Your task to perform on an android device: Show me a list of home improvement items on the Home Depot website. Image 0: 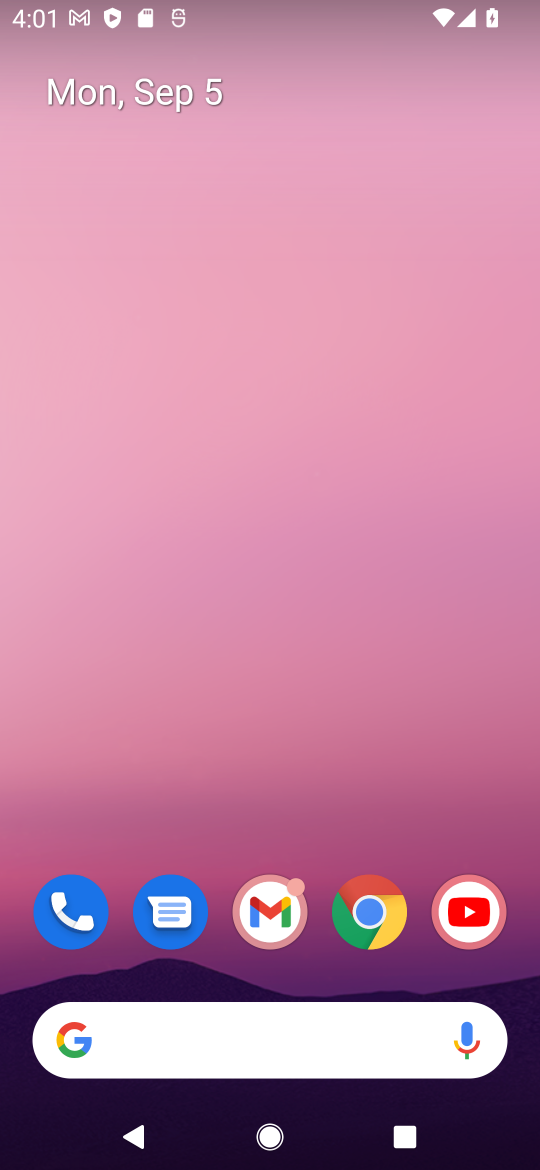
Step 0: click (365, 932)
Your task to perform on an android device: Show me a list of home improvement items on the Home Depot website. Image 1: 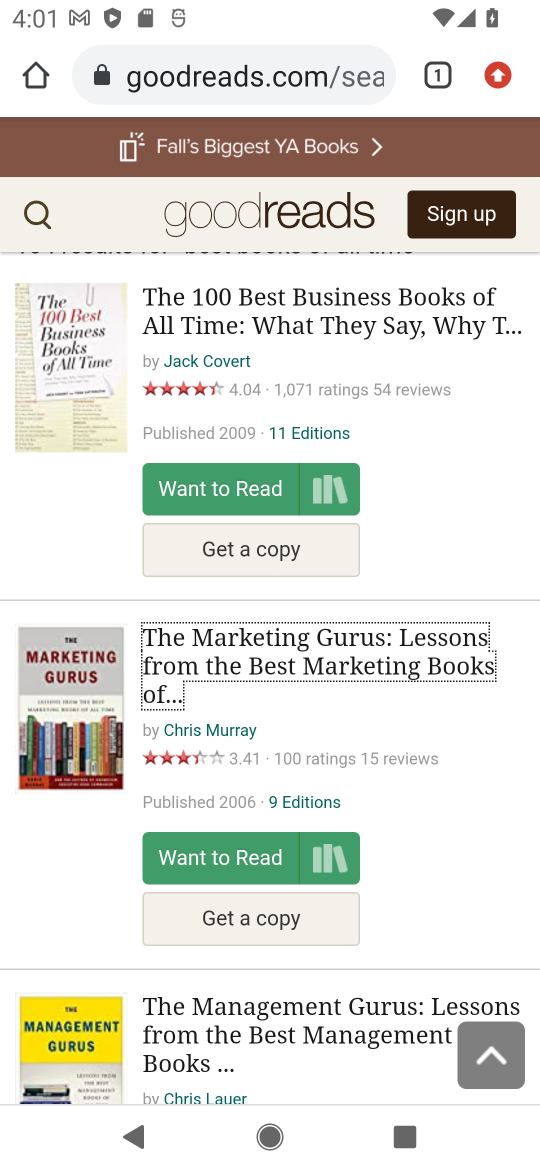
Step 1: click (273, 76)
Your task to perform on an android device: Show me a list of home improvement items on the Home Depot website. Image 2: 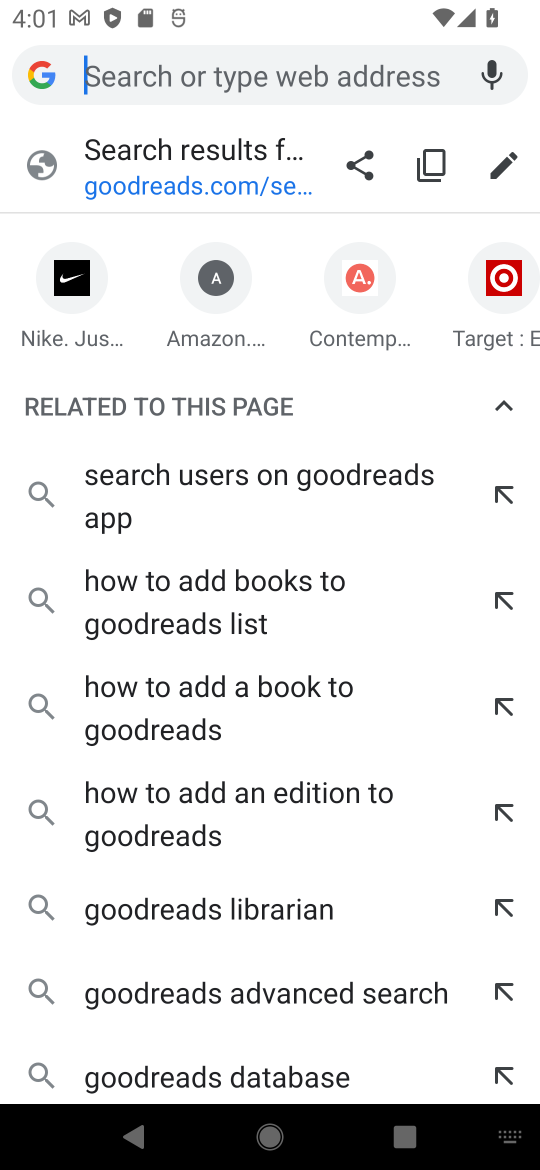
Step 2: type "home depot"
Your task to perform on an android device: Show me a list of home improvement items on the Home Depot website. Image 3: 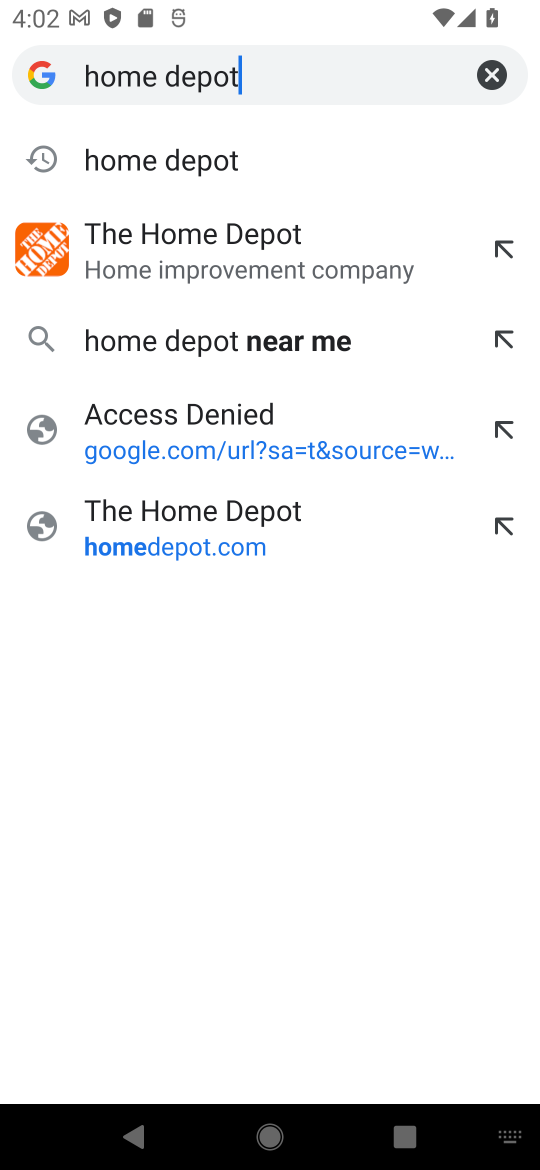
Step 3: press enter
Your task to perform on an android device: Show me a list of home improvement items on the Home Depot website. Image 4: 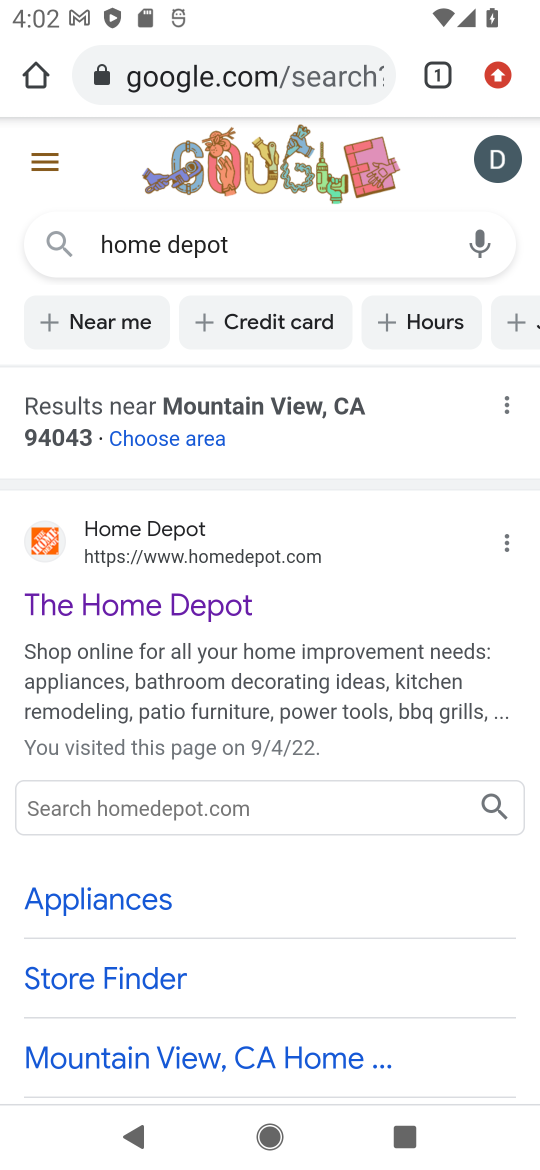
Step 4: click (140, 600)
Your task to perform on an android device: Show me a list of home improvement items on the Home Depot website. Image 5: 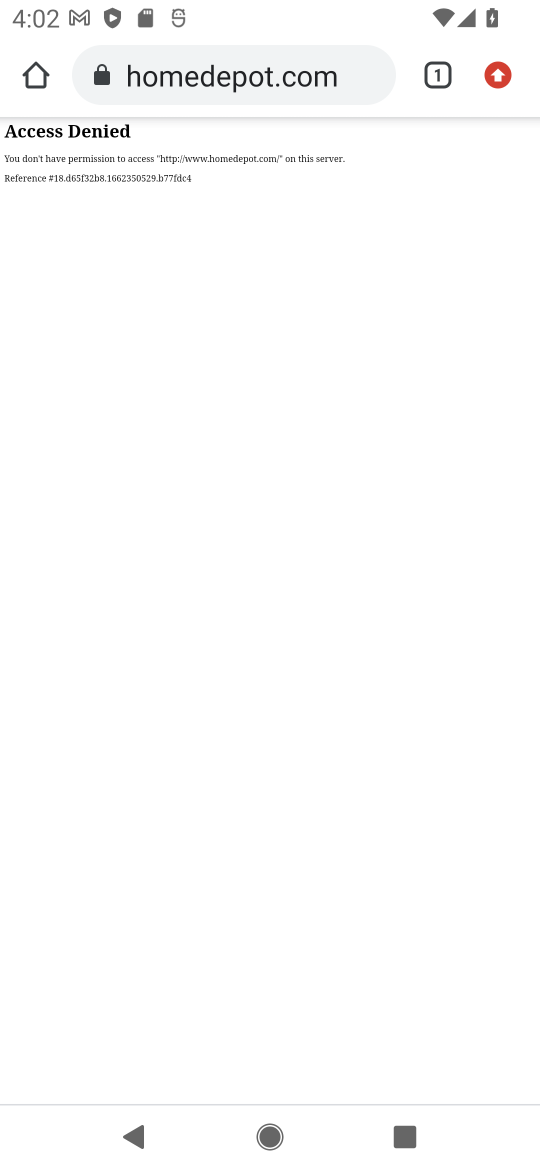
Step 5: task complete